Your task to perform on an android device: turn off data saver in the chrome app Image 0: 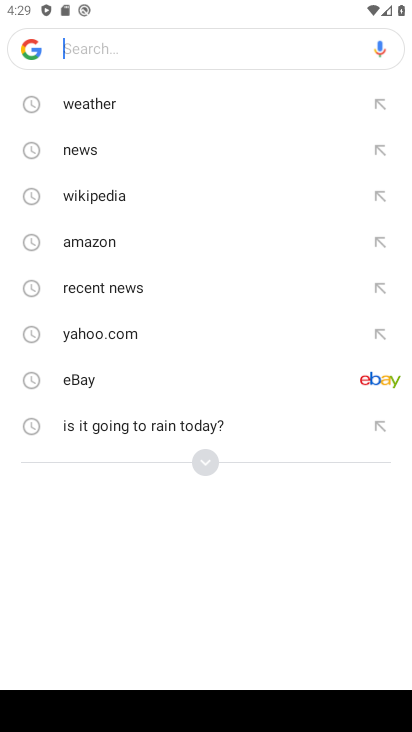
Step 0: press home button
Your task to perform on an android device: turn off data saver in the chrome app Image 1: 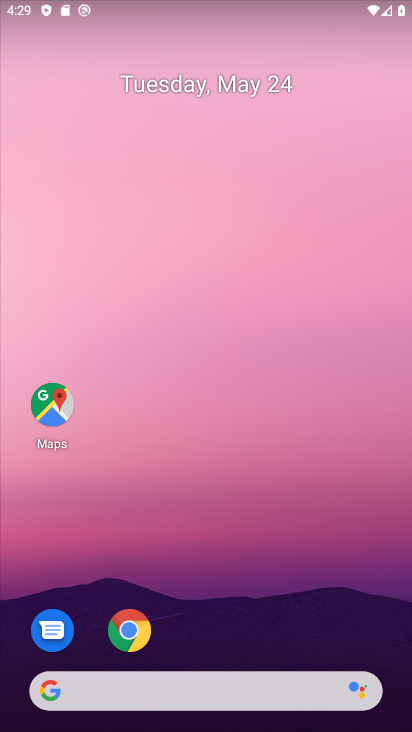
Step 1: click (128, 623)
Your task to perform on an android device: turn off data saver in the chrome app Image 2: 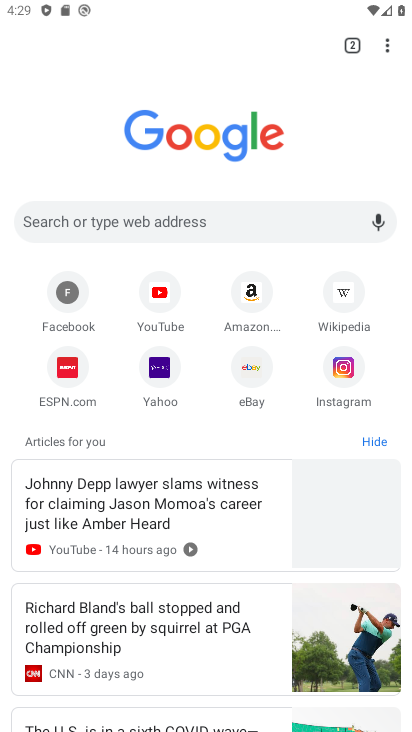
Step 2: click (396, 46)
Your task to perform on an android device: turn off data saver in the chrome app Image 3: 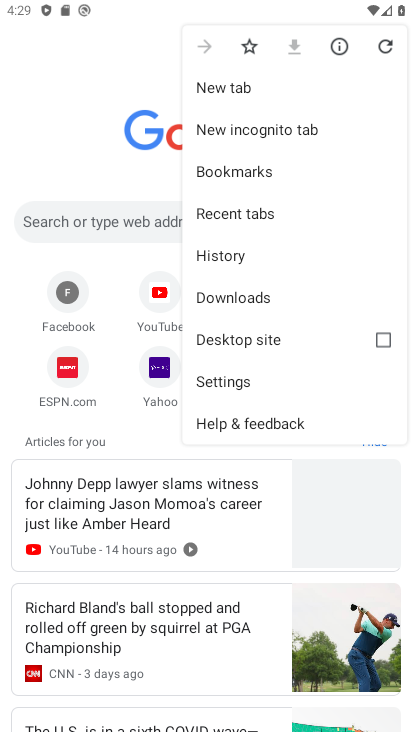
Step 3: click (270, 392)
Your task to perform on an android device: turn off data saver in the chrome app Image 4: 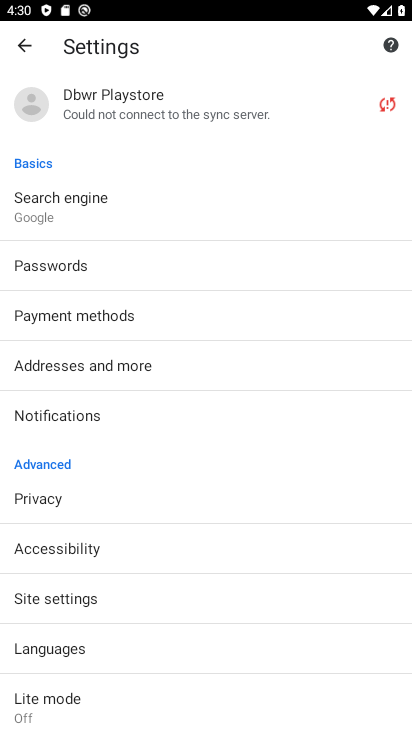
Step 4: click (51, 694)
Your task to perform on an android device: turn off data saver in the chrome app Image 5: 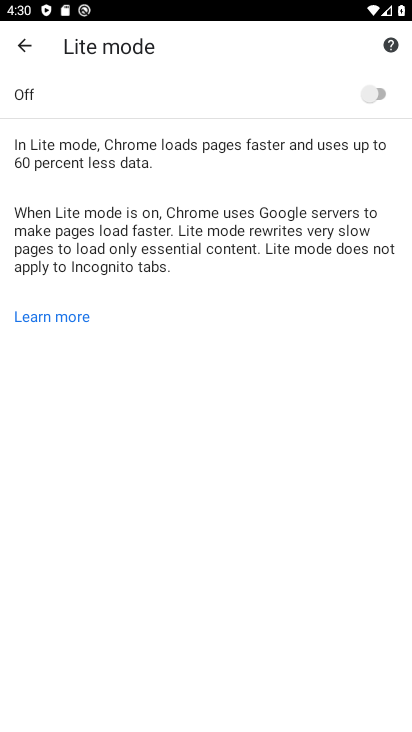
Step 5: task complete